Your task to perform on an android device: Open maps Image 0: 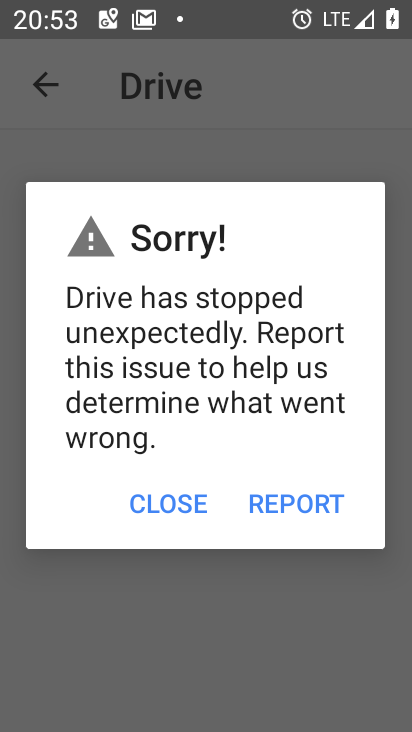
Step 0: press home button
Your task to perform on an android device: Open maps Image 1: 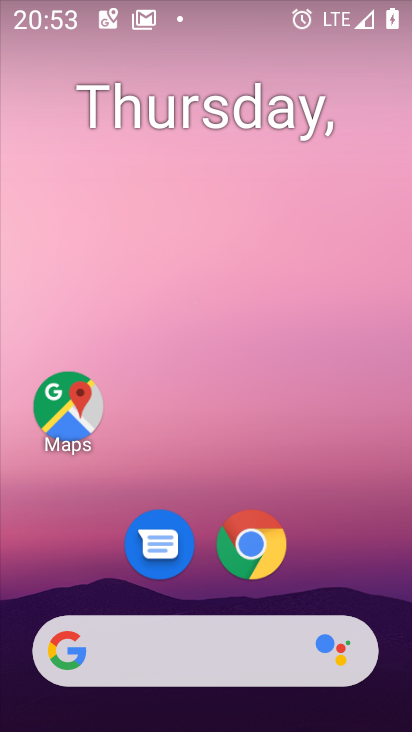
Step 1: click (68, 410)
Your task to perform on an android device: Open maps Image 2: 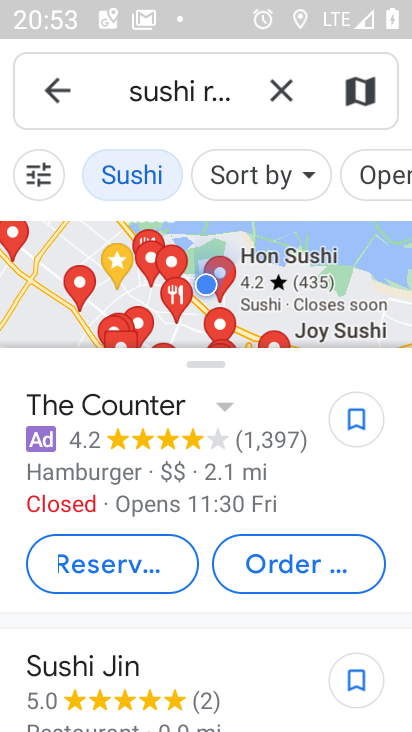
Step 2: task complete